Your task to perform on an android device: see creations saved in the google photos Image 0: 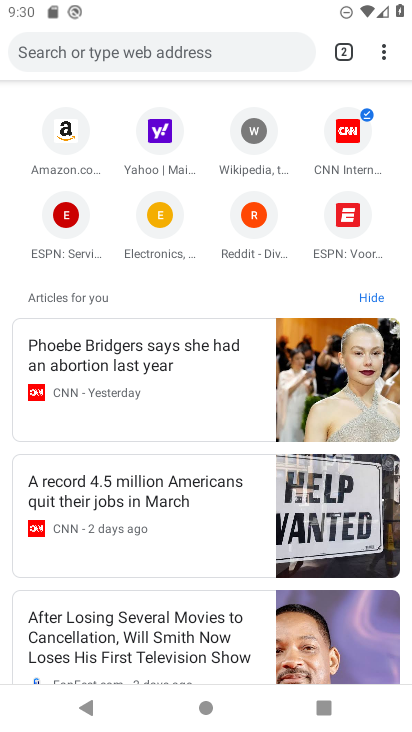
Step 0: press home button
Your task to perform on an android device: see creations saved in the google photos Image 1: 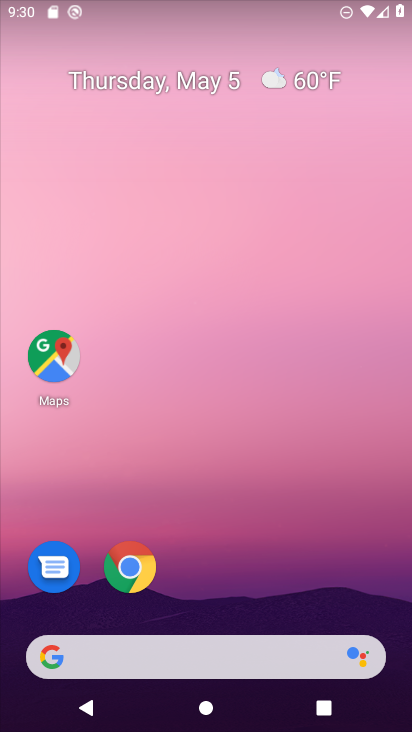
Step 1: drag from (221, 726) to (224, 82)
Your task to perform on an android device: see creations saved in the google photos Image 2: 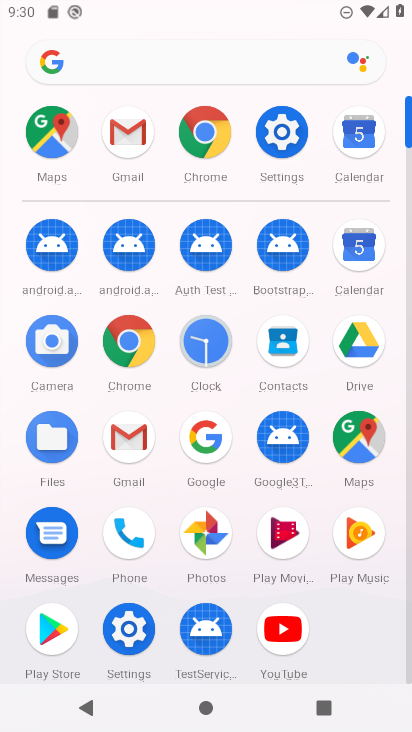
Step 2: click (206, 545)
Your task to perform on an android device: see creations saved in the google photos Image 3: 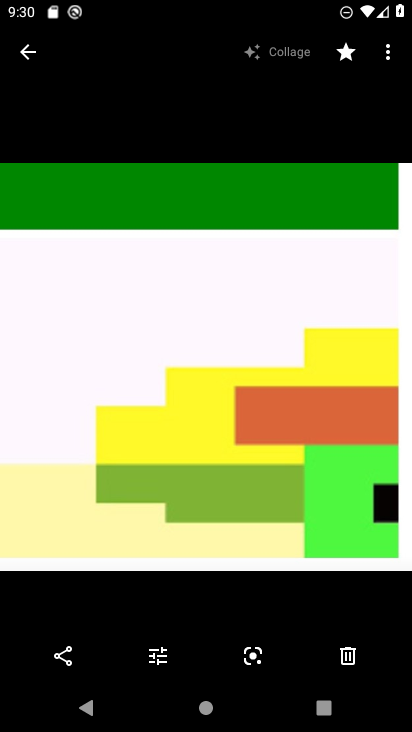
Step 3: click (36, 56)
Your task to perform on an android device: see creations saved in the google photos Image 4: 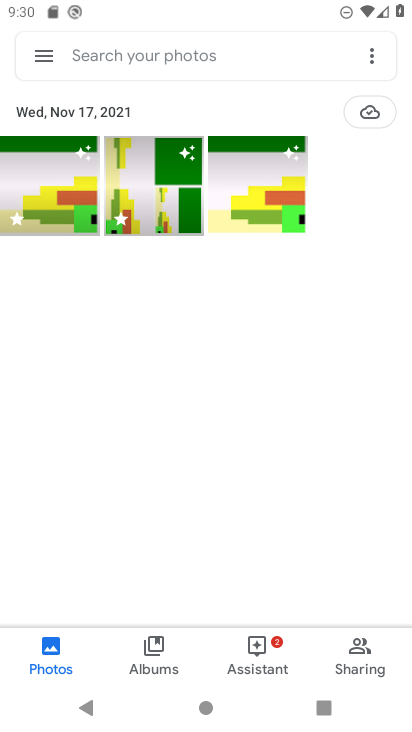
Step 4: click (149, 54)
Your task to perform on an android device: see creations saved in the google photos Image 5: 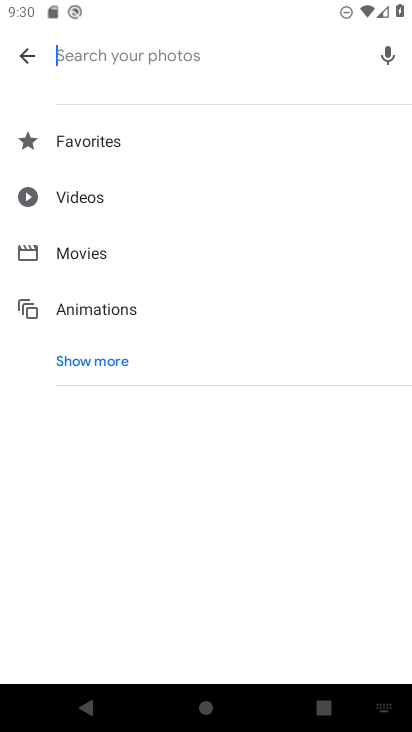
Step 5: click (87, 362)
Your task to perform on an android device: see creations saved in the google photos Image 6: 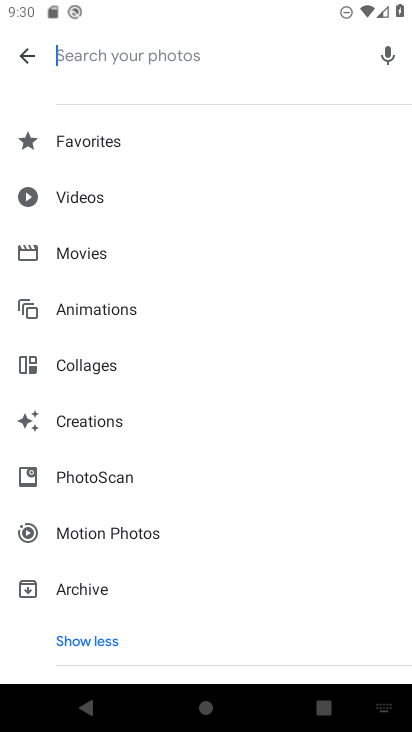
Step 6: click (96, 424)
Your task to perform on an android device: see creations saved in the google photos Image 7: 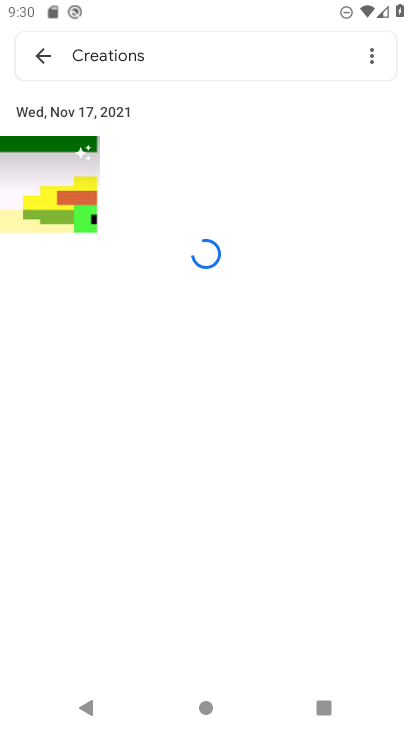
Step 7: task complete